Your task to perform on an android device: Open sound settings Image 0: 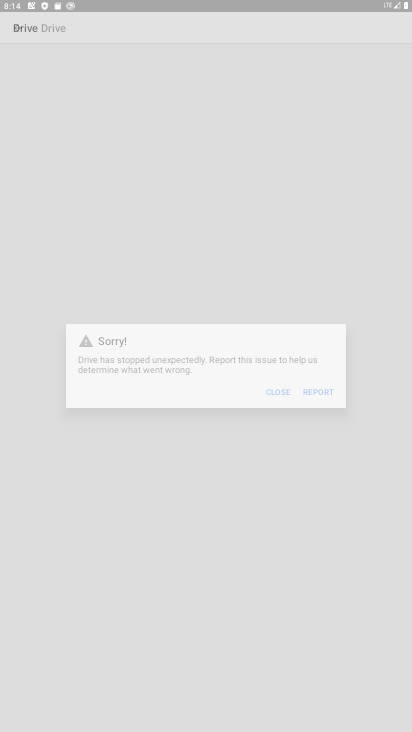
Step 0: drag from (206, 661) to (249, 299)
Your task to perform on an android device: Open sound settings Image 1: 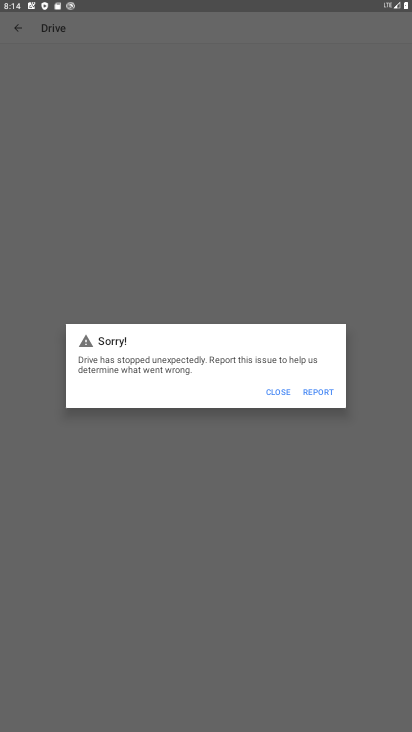
Step 1: press home button
Your task to perform on an android device: Open sound settings Image 2: 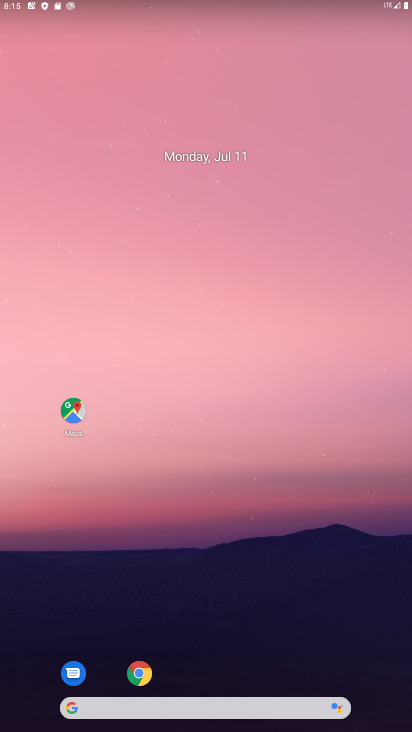
Step 2: drag from (181, 685) to (257, 230)
Your task to perform on an android device: Open sound settings Image 3: 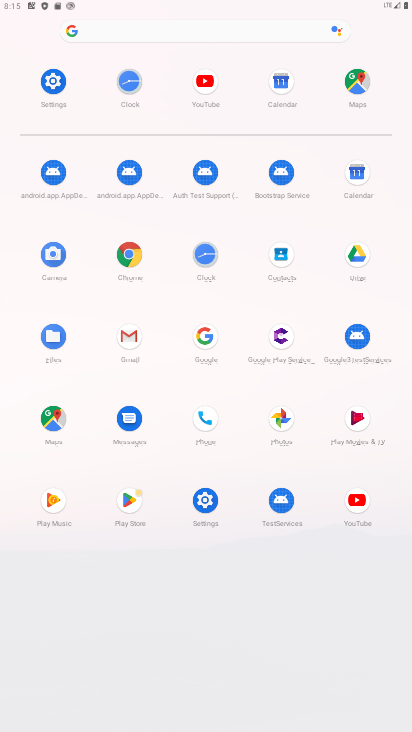
Step 3: click (63, 86)
Your task to perform on an android device: Open sound settings Image 4: 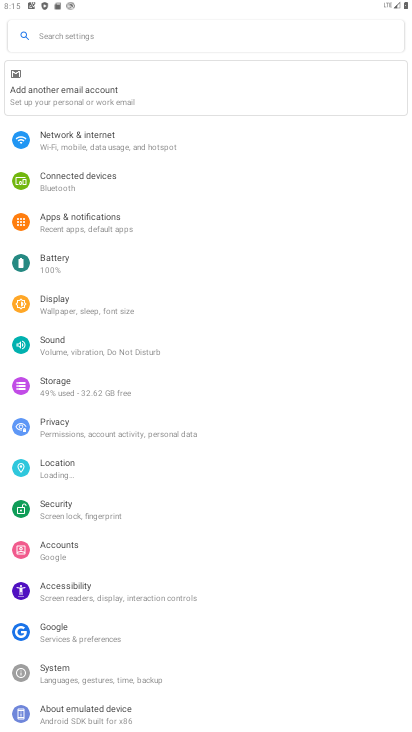
Step 4: drag from (91, 678) to (153, 294)
Your task to perform on an android device: Open sound settings Image 5: 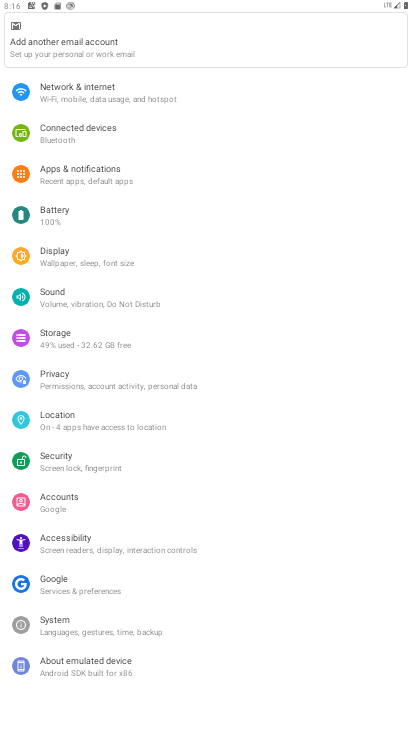
Step 5: click (69, 301)
Your task to perform on an android device: Open sound settings Image 6: 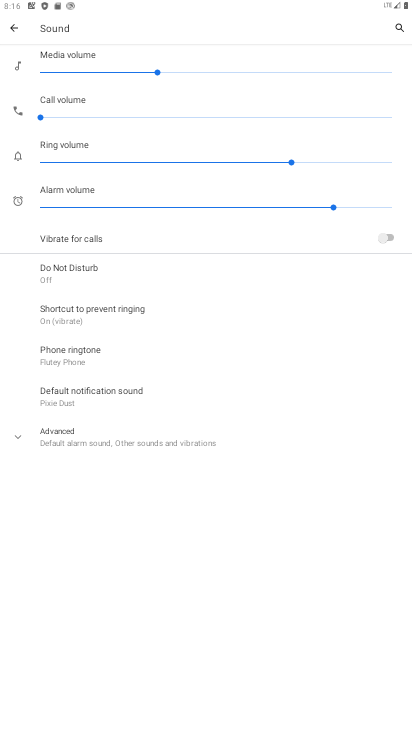
Step 6: click (95, 449)
Your task to perform on an android device: Open sound settings Image 7: 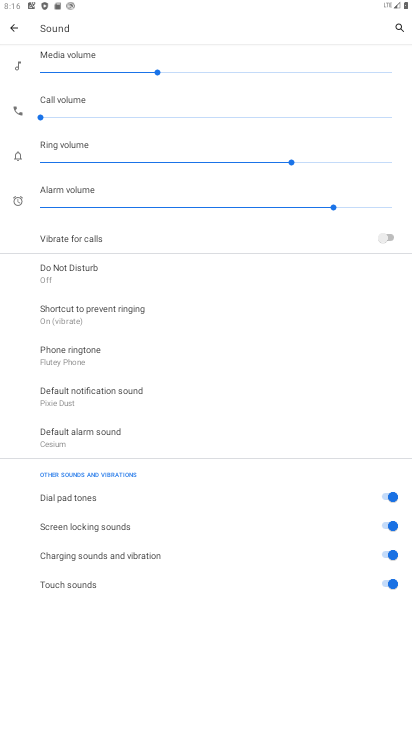
Step 7: task complete